Your task to perform on an android device: What's the weather going to be tomorrow? Image 0: 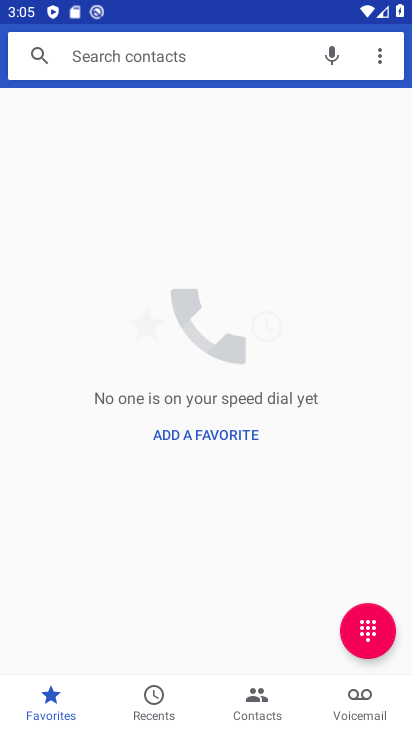
Step 0: press home button
Your task to perform on an android device: What's the weather going to be tomorrow? Image 1: 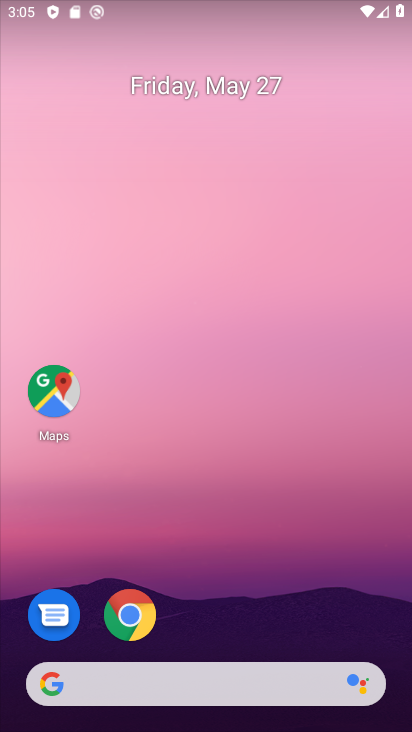
Step 1: click (130, 682)
Your task to perform on an android device: What's the weather going to be tomorrow? Image 2: 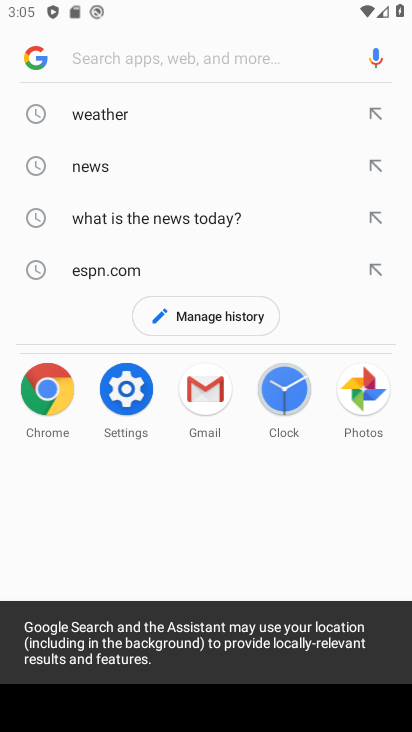
Step 2: click (123, 115)
Your task to perform on an android device: What's the weather going to be tomorrow? Image 3: 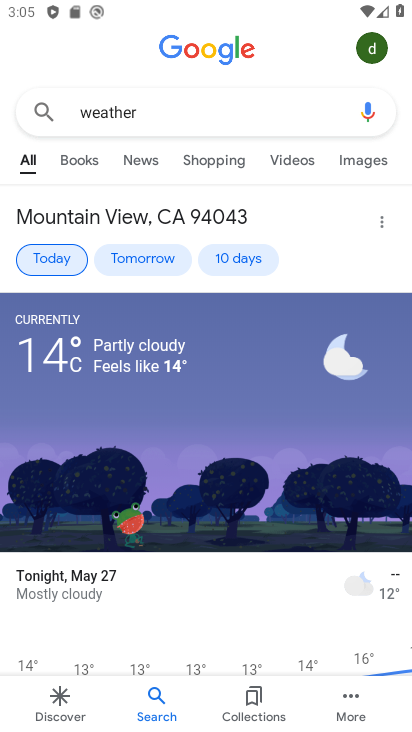
Step 3: click (147, 258)
Your task to perform on an android device: What's the weather going to be tomorrow? Image 4: 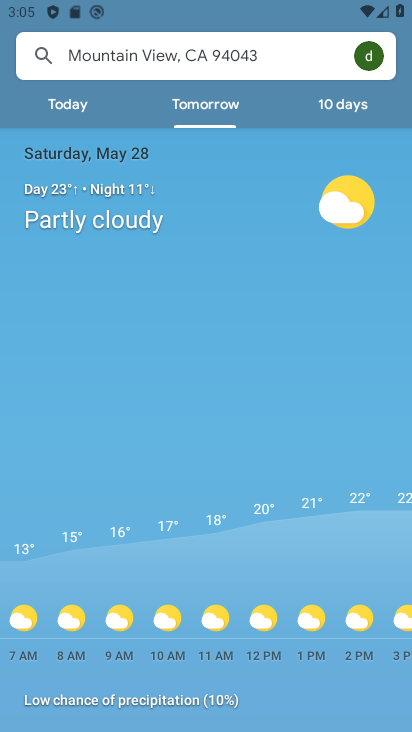
Step 4: task complete